Your task to perform on an android device: Search for dell alienware on newegg.com, select the first entry, and add it to the cart. Image 0: 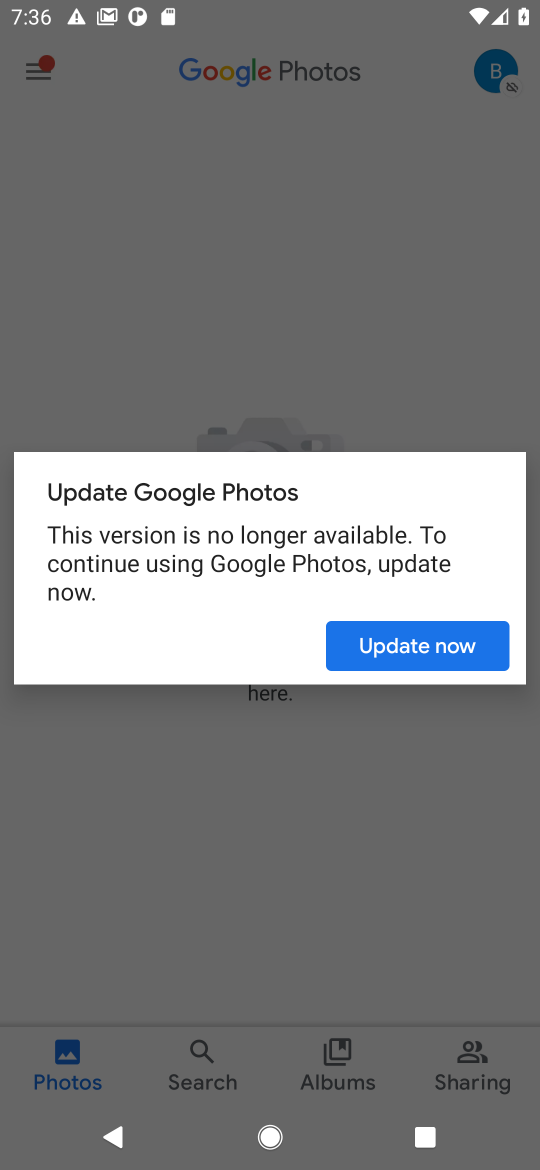
Step 0: press home button
Your task to perform on an android device: Search for dell alienware on newegg.com, select the first entry, and add it to the cart. Image 1: 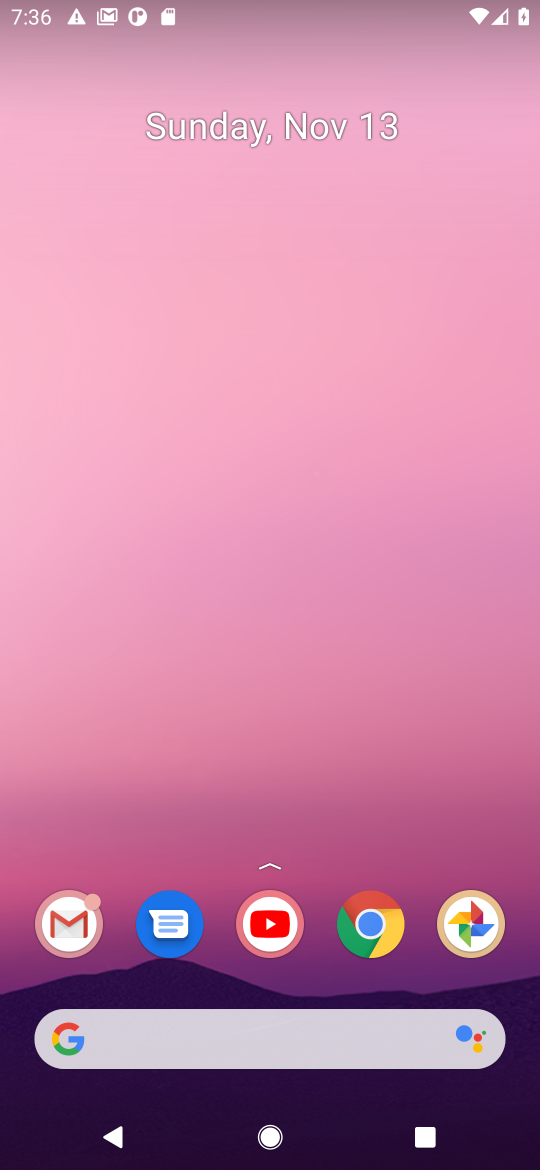
Step 1: click (371, 935)
Your task to perform on an android device: Search for dell alienware on newegg.com, select the first entry, and add it to the cart. Image 2: 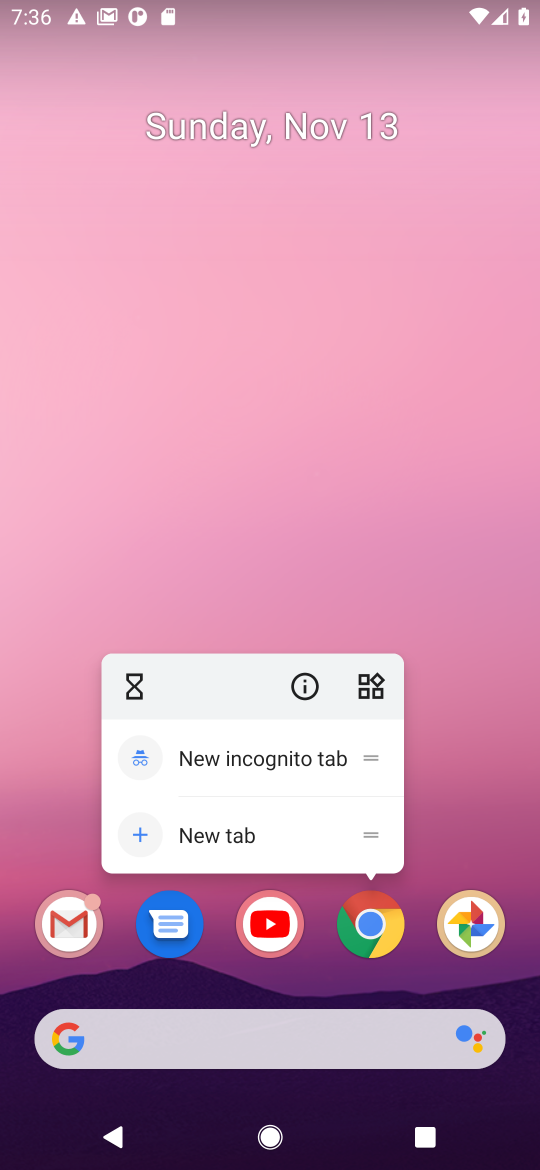
Step 2: click (371, 935)
Your task to perform on an android device: Search for dell alienware on newegg.com, select the first entry, and add it to the cart. Image 3: 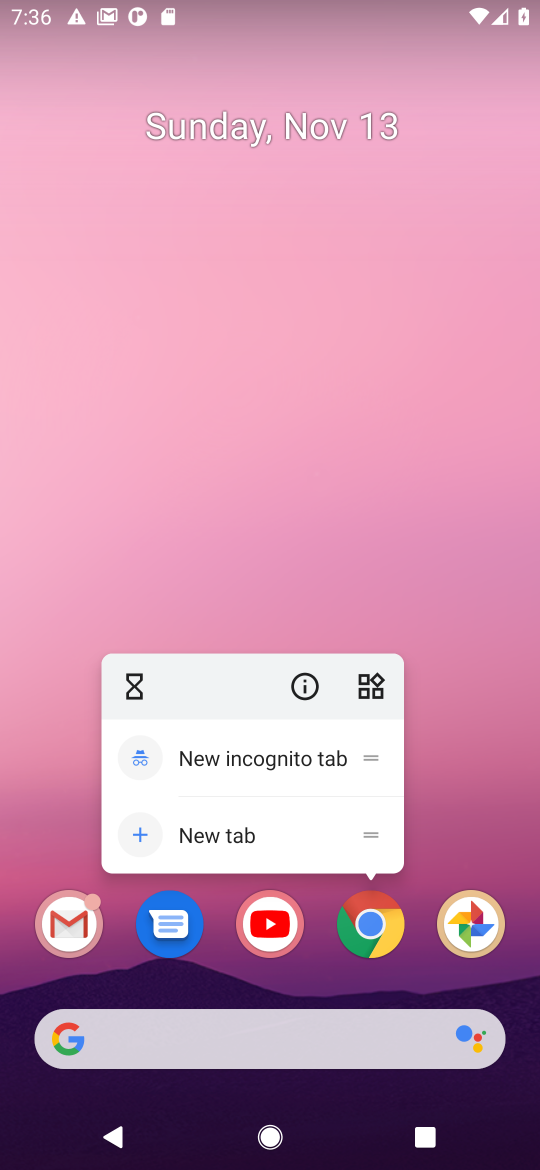
Step 3: click (369, 927)
Your task to perform on an android device: Search for dell alienware on newegg.com, select the first entry, and add it to the cart. Image 4: 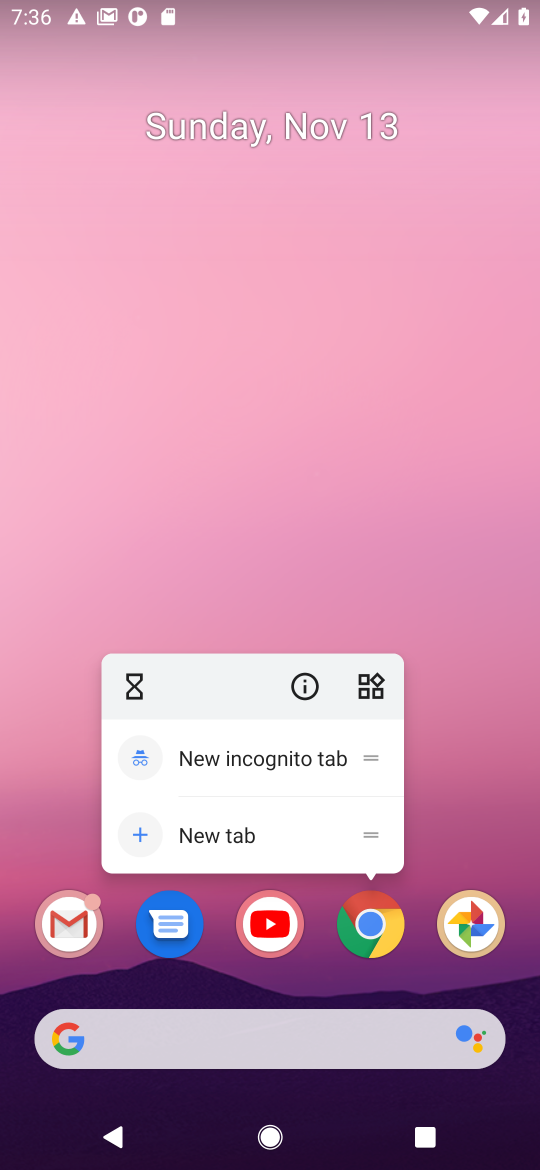
Step 4: click (358, 925)
Your task to perform on an android device: Search for dell alienware on newegg.com, select the first entry, and add it to the cart. Image 5: 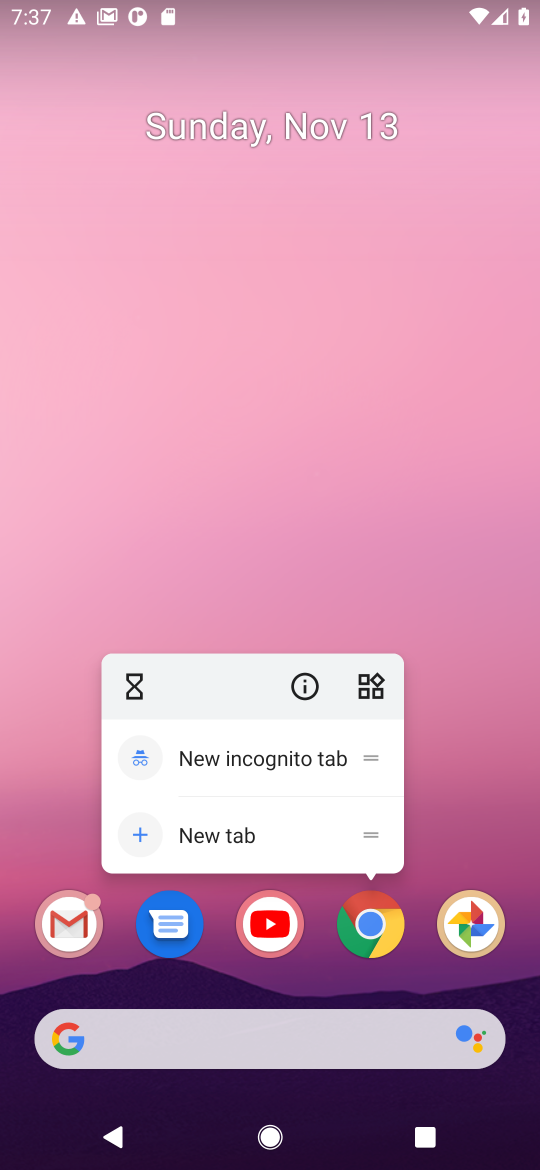
Step 5: click (358, 924)
Your task to perform on an android device: Search for dell alienware on newegg.com, select the first entry, and add it to the cart. Image 6: 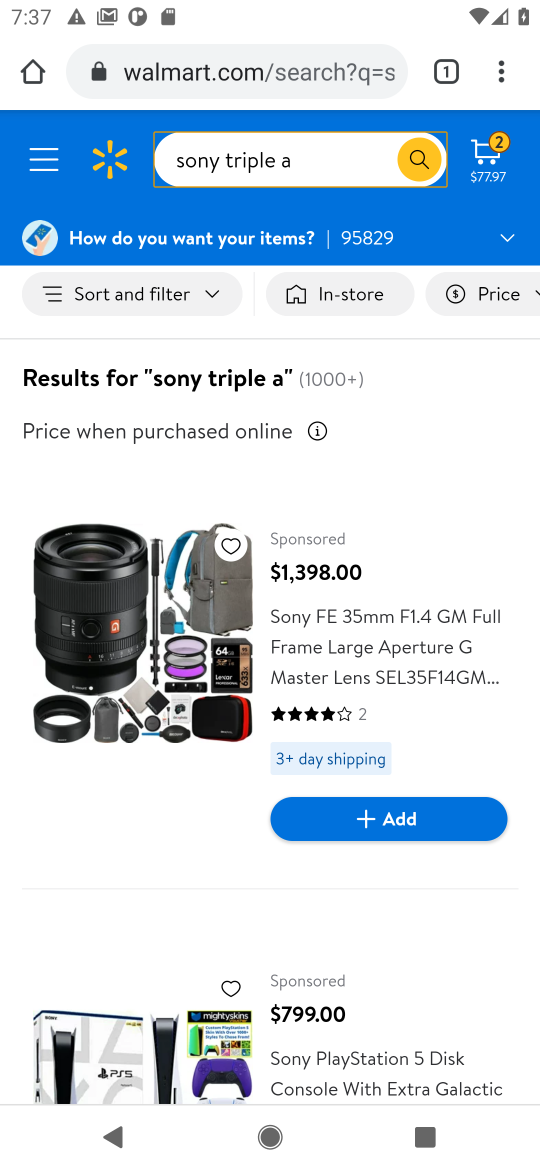
Step 6: click (372, 71)
Your task to perform on an android device: Search for dell alienware on newegg.com, select the first entry, and add it to the cart. Image 7: 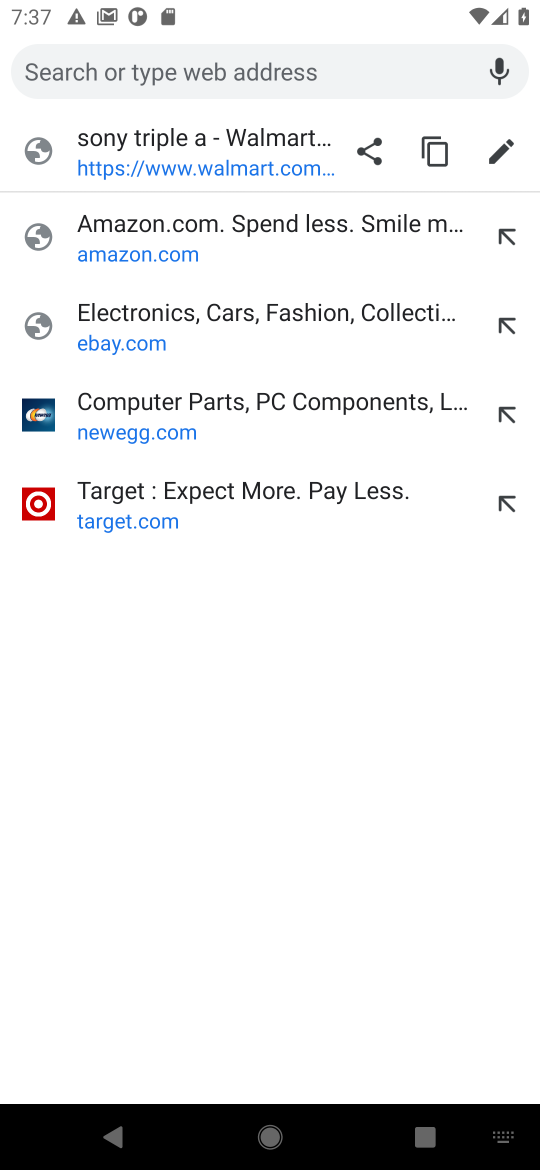
Step 7: type "new"
Your task to perform on an android device: Search for dell alienware on newegg.com, select the first entry, and add it to the cart. Image 8: 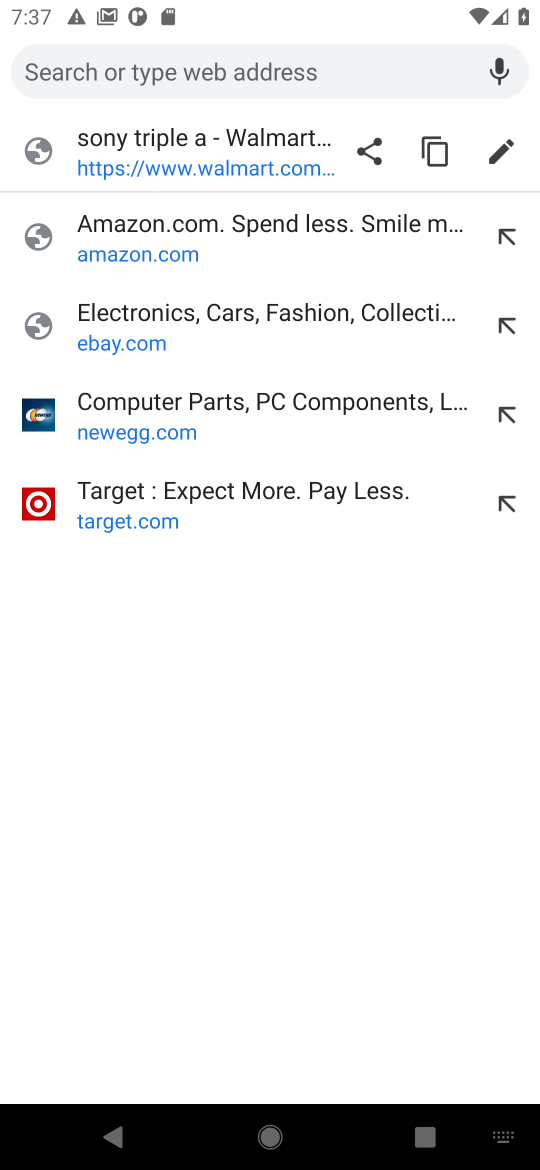
Step 8: click (167, 416)
Your task to perform on an android device: Search for dell alienware on newegg.com, select the first entry, and add it to the cart. Image 9: 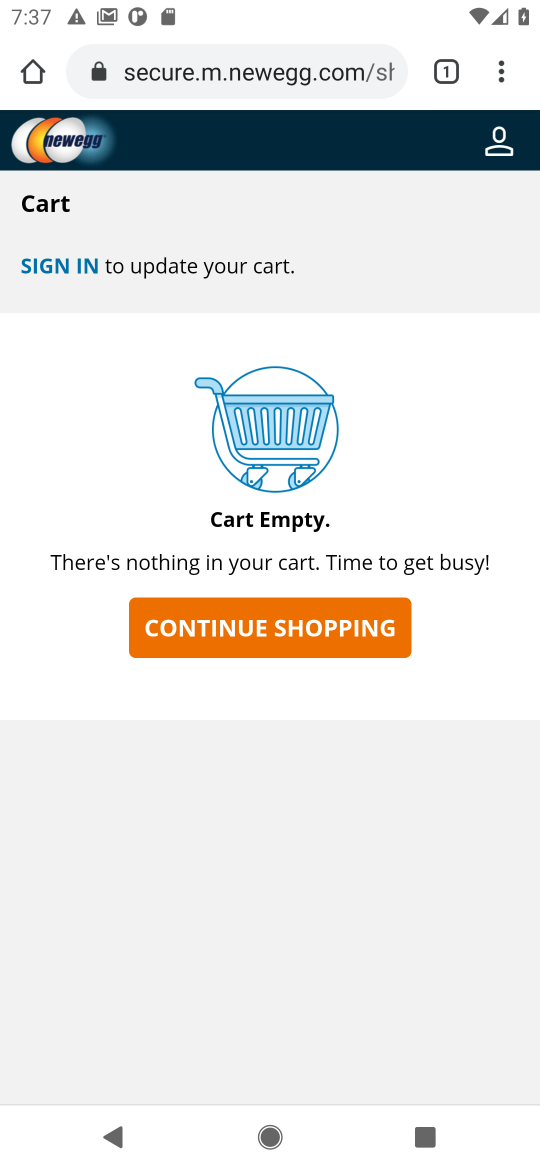
Step 9: click (319, 618)
Your task to perform on an android device: Search for dell alienware on newegg.com, select the first entry, and add it to the cart. Image 10: 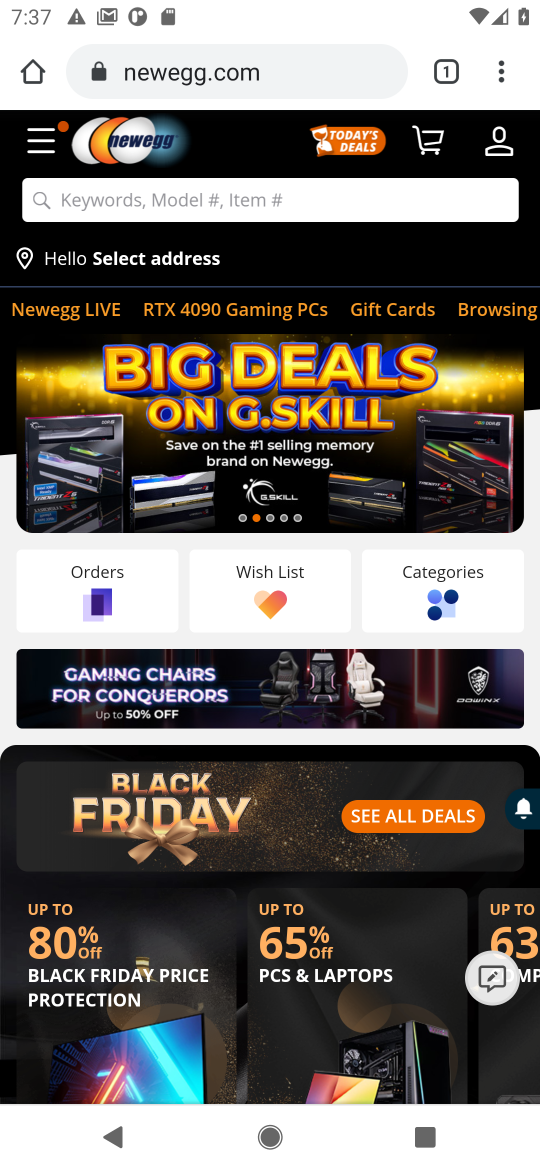
Step 10: click (246, 200)
Your task to perform on an android device: Search for dell alienware on newegg.com, select the first entry, and add it to the cart. Image 11: 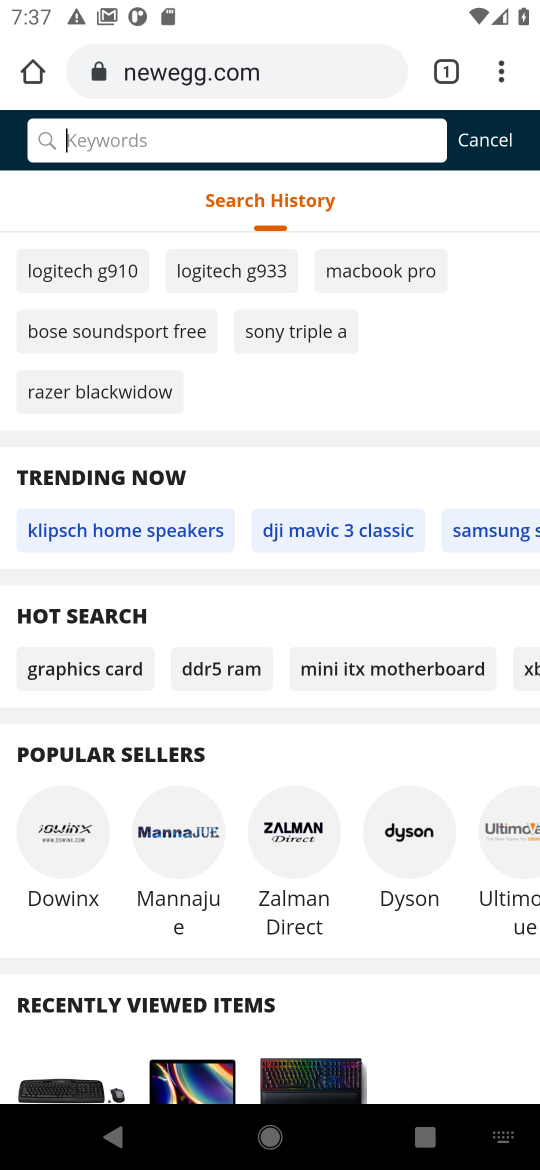
Step 11: drag from (235, 1168) to (306, 1087)
Your task to perform on an android device: Search for dell alienware on newegg.com, select the first entry, and add it to the cart. Image 12: 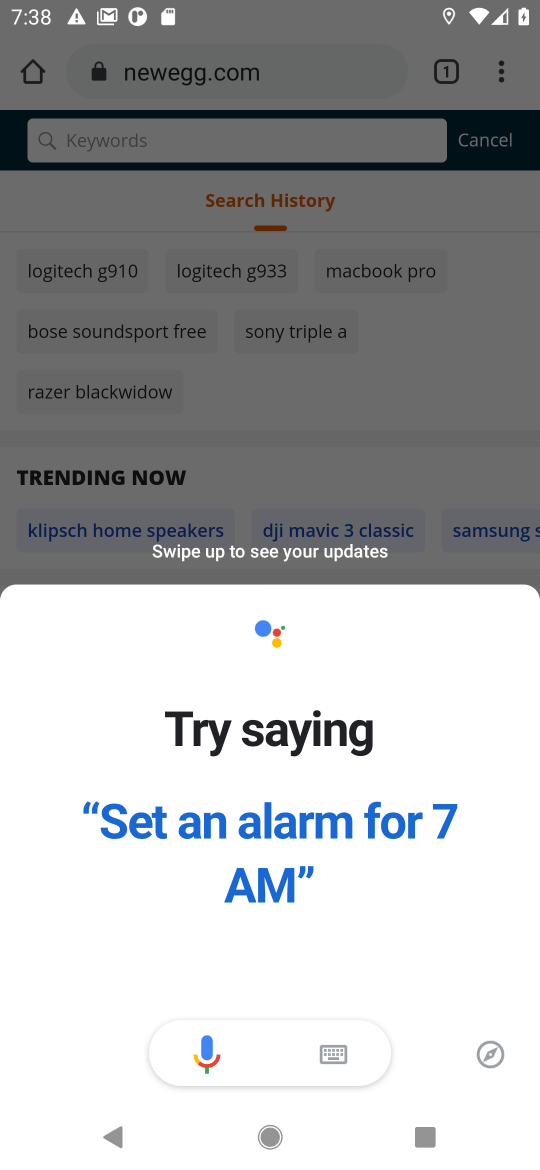
Step 12: type " dell alienware"
Your task to perform on an android device: Search for dell alienware on newegg.com, select the first entry, and add it to the cart. Image 13: 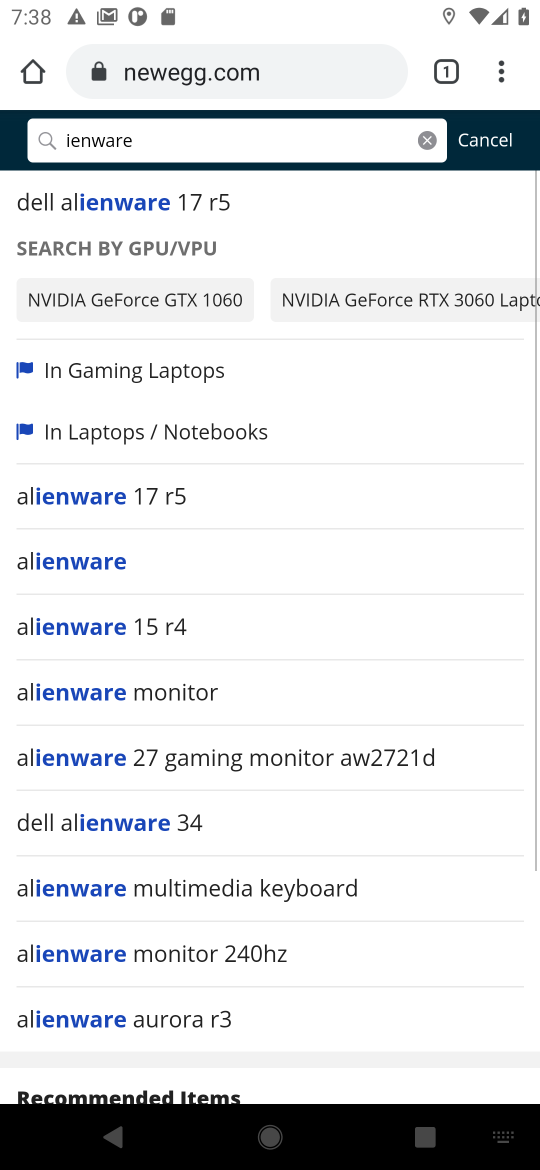
Step 13: click (327, 152)
Your task to perform on an android device: Search for dell alienware on newegg.com, select the first entry, and add it to the cart. Image 14: 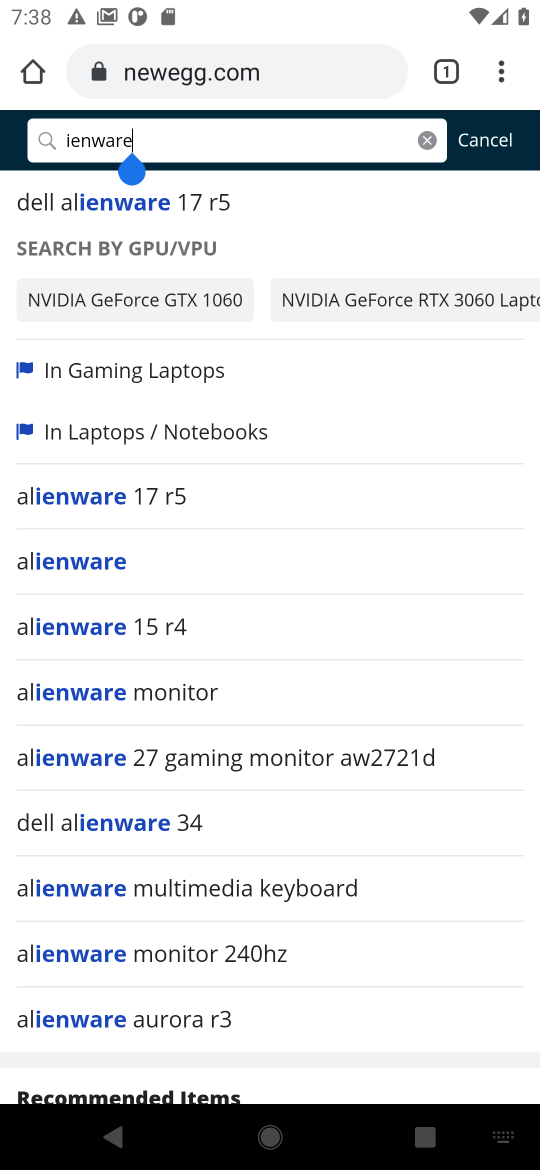
Step 14: click (424, 136)
Your task to perform on an android device: Search for dell alienware on newegg.com, select the first entry, and add it to the cart. Image 15: 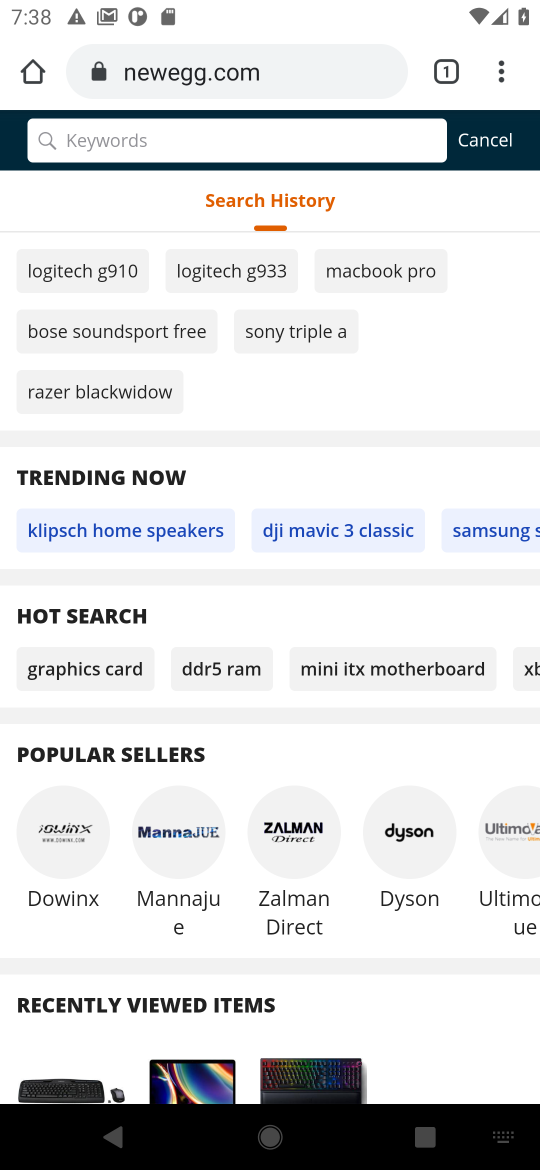
Step 15: click (197, 156)
Your task to perform on an android device: Search for dell alienware on newegg.com, select the first entry, and add it to the cart. Image 16: 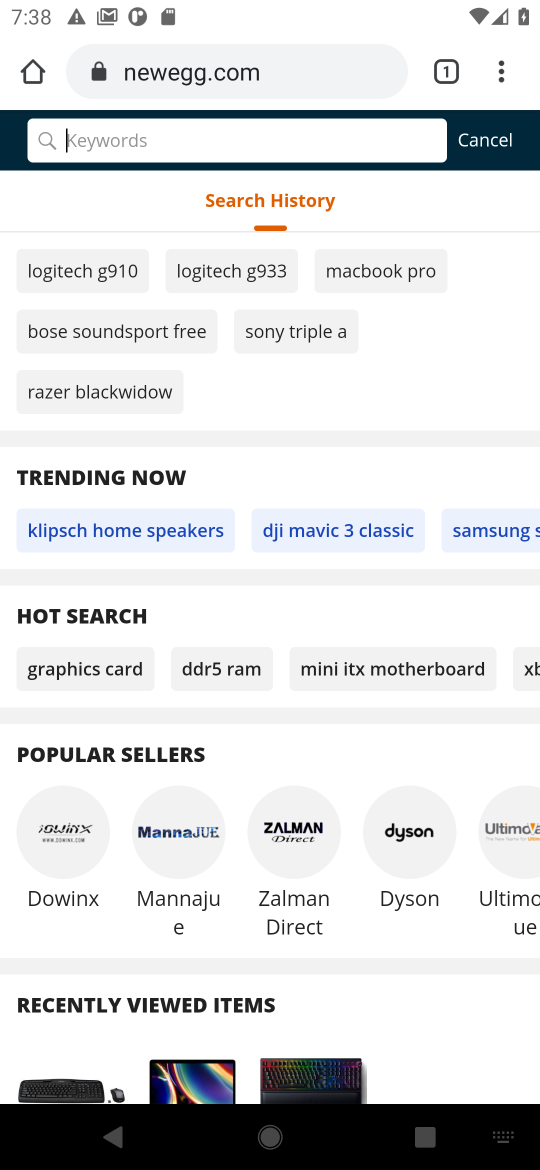
Step 16: type " dell alienware"
Your task to perform on an android device: Search for dell alienware on newegg.com, select the first entry, and add it to the cart. Image 17: 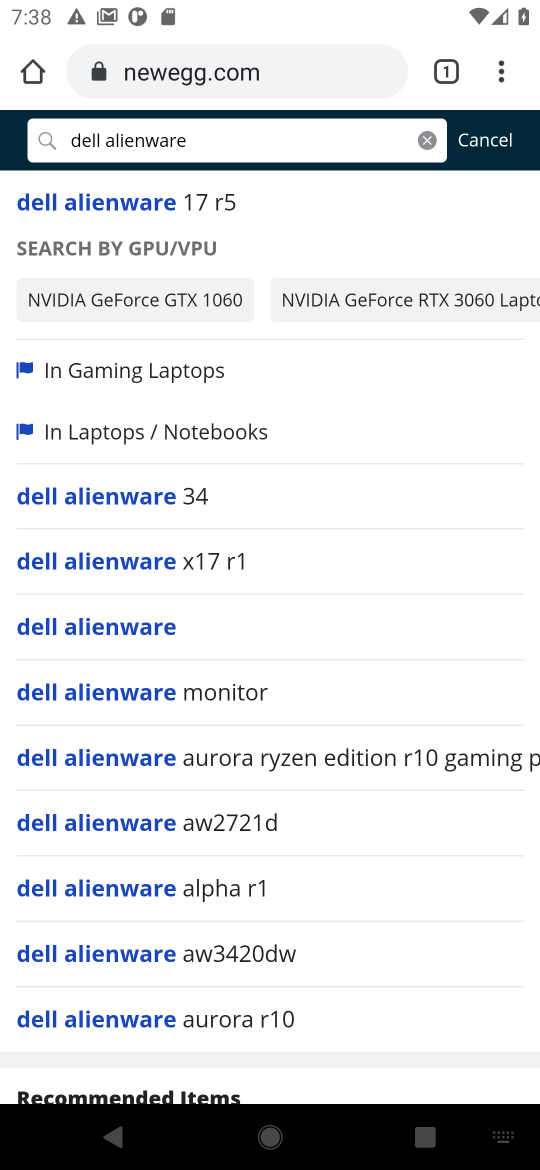
Step 17: click (140, 616)
Your task to perform on an android device: Search for dell alienware on newegg.com, select the first entry, and add it to the cart. Image 18: 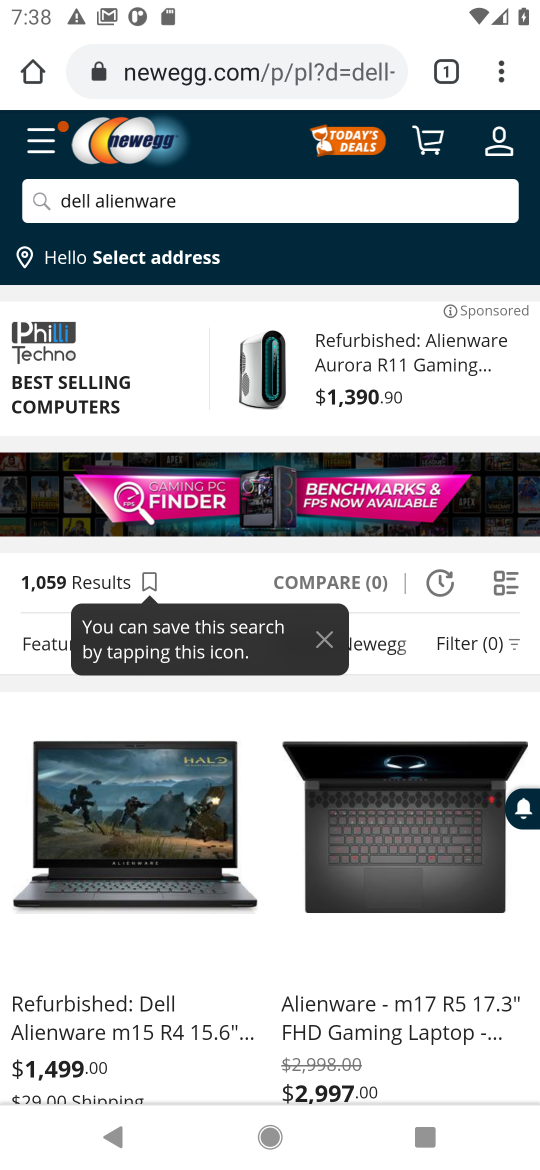
Step 18: click (166, 844)
Your task to perform on an android device: Search for dell alienware on newegg.com, select the first entry, and add it to the cart. Image 19: 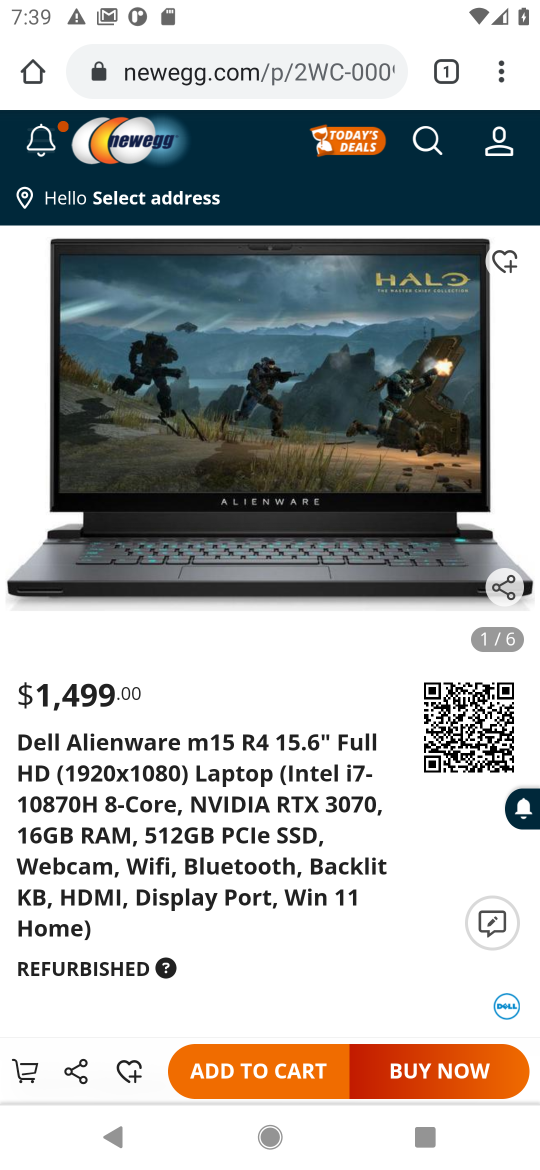
Step 19: click (289, 1072)
Your task to perform on an android device: Search for dell alienware on newegg.com, select the first entry, and add it to the cart. Image 20: 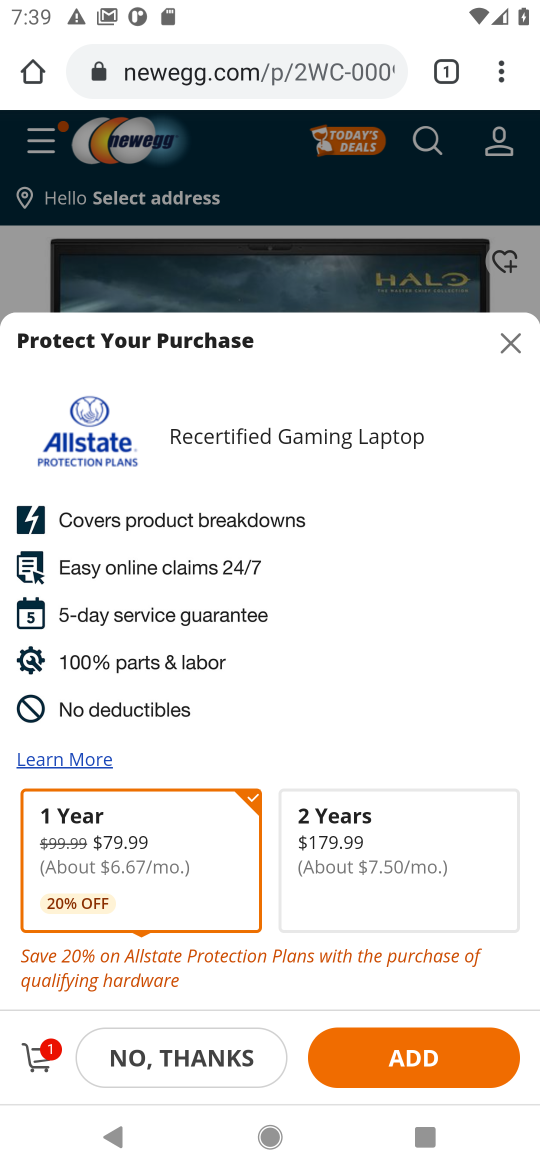
Step 20: task complete